Your task to perform on an android device: Do I have any events tomorrow? Image 0: 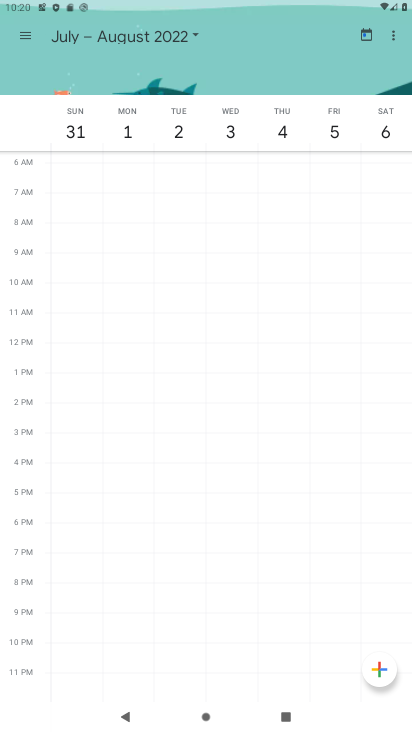
Step 0: press home button
Your task to perform on an android device: Do I have any events tomorrow? Image 1: 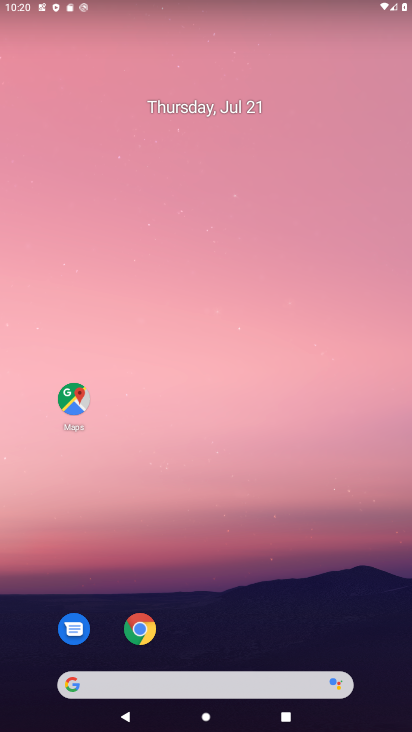
Step 1: drag from (334, 600) to (294, 151)
Your task to perform on an android device: Do I have any events tomorrow? Image 2: 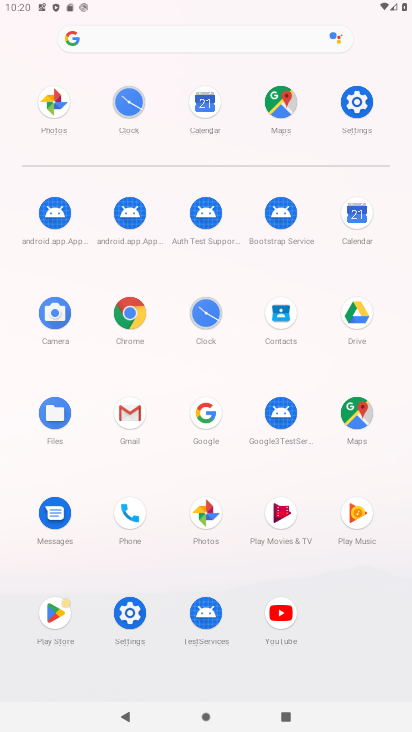
Step 2: click (361, 216)
Your task to perform on an android device: Do I have any events tomorrow? Image 3: 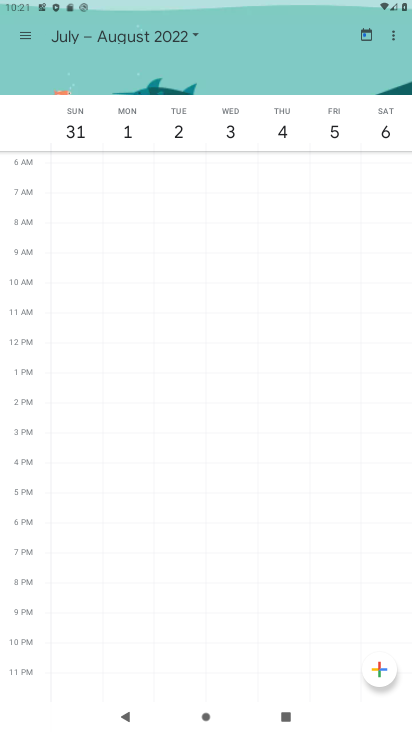
Step 3: drag from (60, 129) to (363, 160)
Your task to perform on an android device: Do I have any events tomorrow? Image 4: 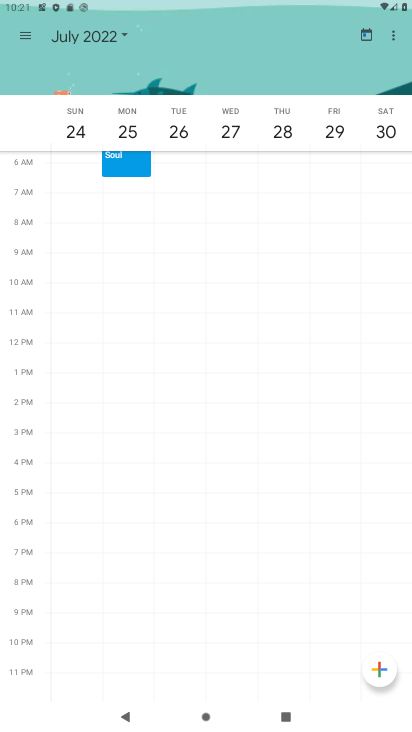
Step 4: drag from (121, 115) to (320, 112)
Your task to perform on an android device: Do I have any events tomorrow? Image 5: 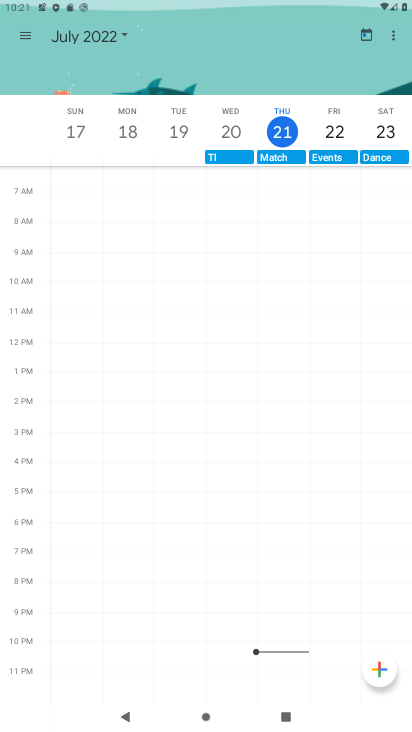
Step 5: click (392, 127)
Your task to perform on an android device: Do I have any events tomorrow? Image 6: 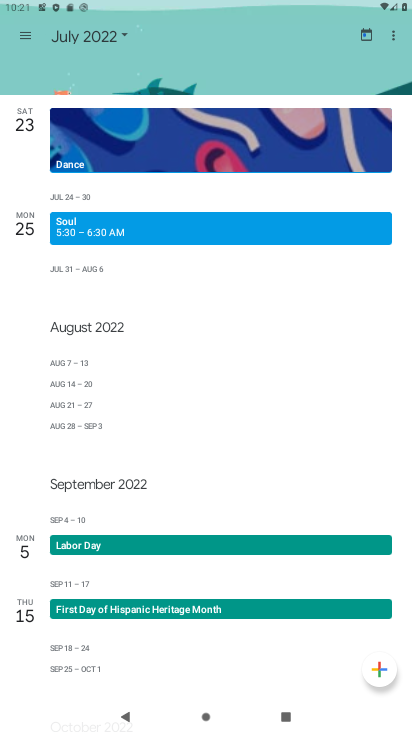
Step 6: task complete